Your task to perform on an android device: Search for dell xps on target, select the first entry, and add it to the cart. Image 0: 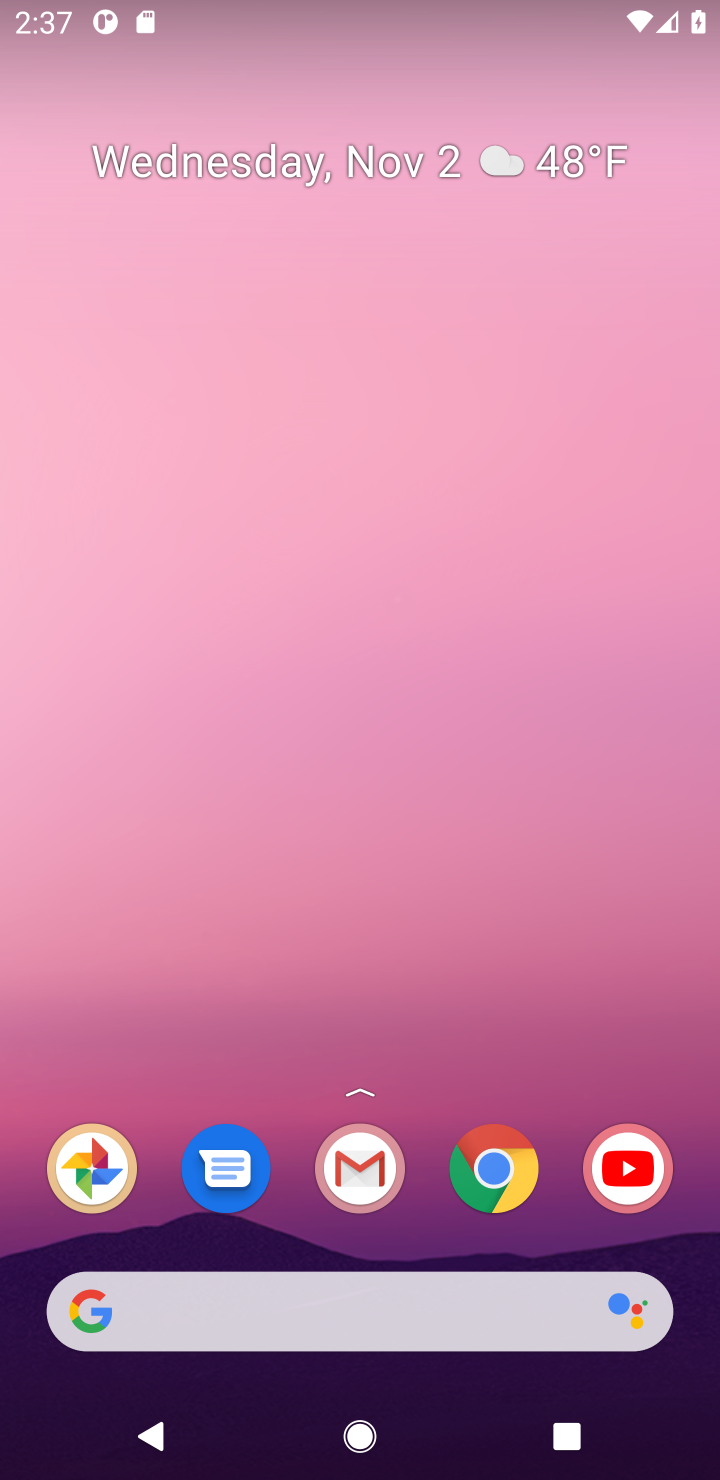
Step 0: drag from (391, 572) to (391, 257)
Your task to perform on an android device: Search for dell xps on target, select the first entry, and add it to the cart. Image 1: 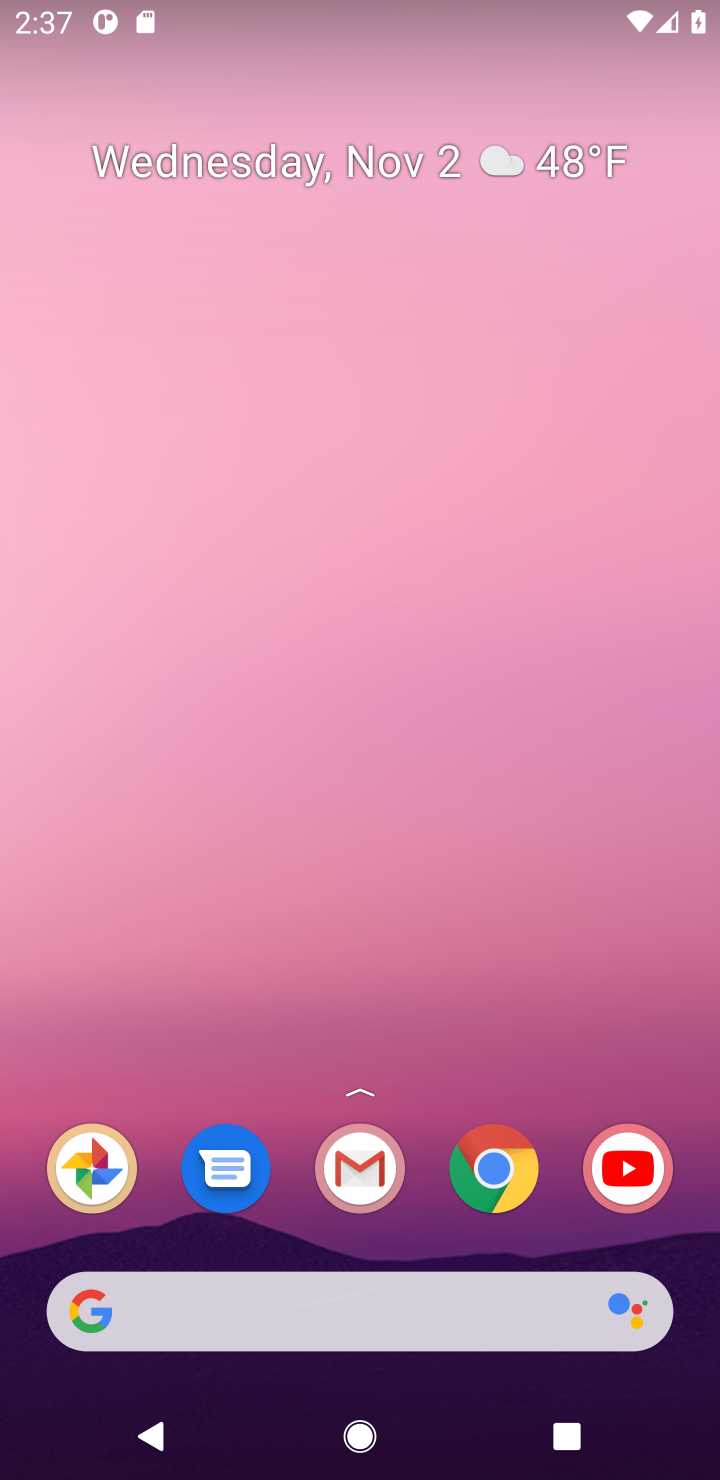
Step 1: click (367, 1305)
Your task to perform on an android device: Search for dell xps on target, select the first entry, and add it to the cart. Image 2: 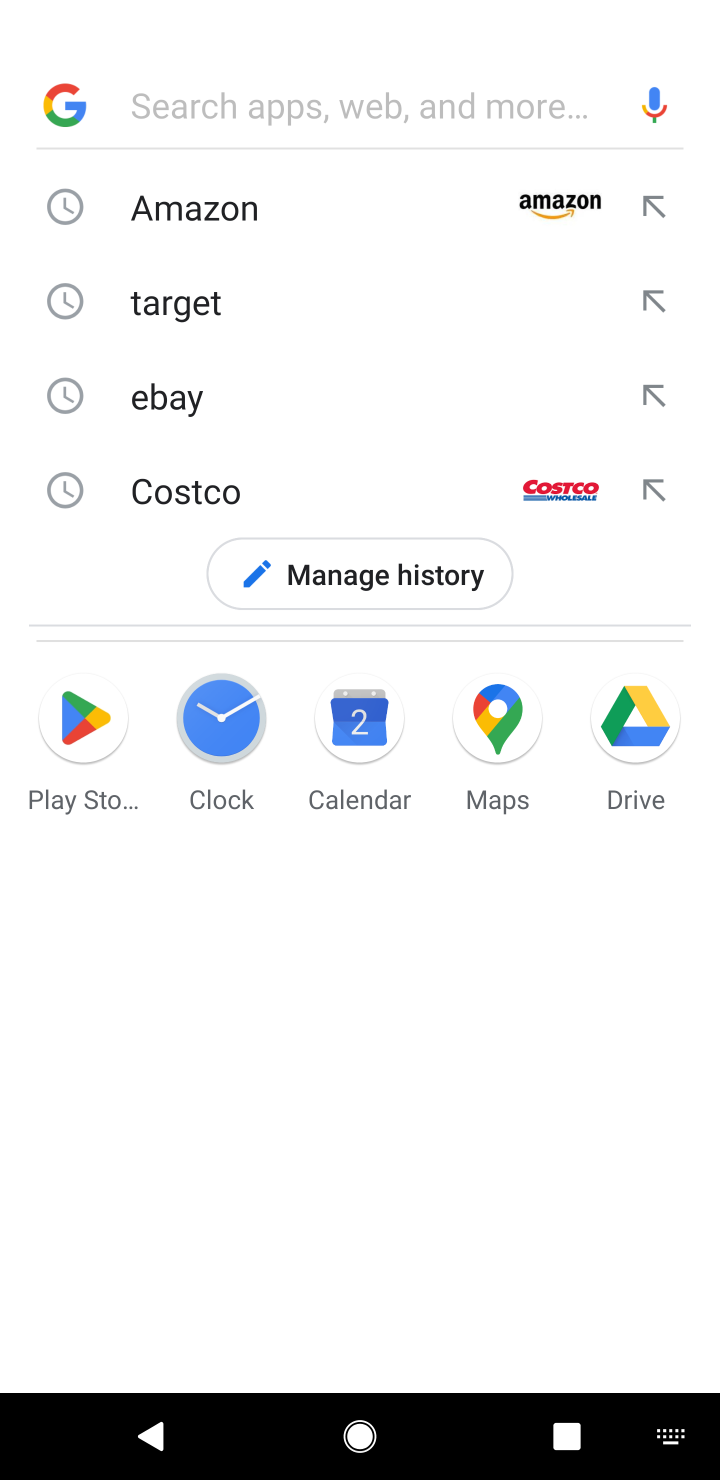
Step 2: click (221, 293)
Your task to perform on an android device: Search for dell xps on target, select the first entry, and add it to the cart. Image 3: 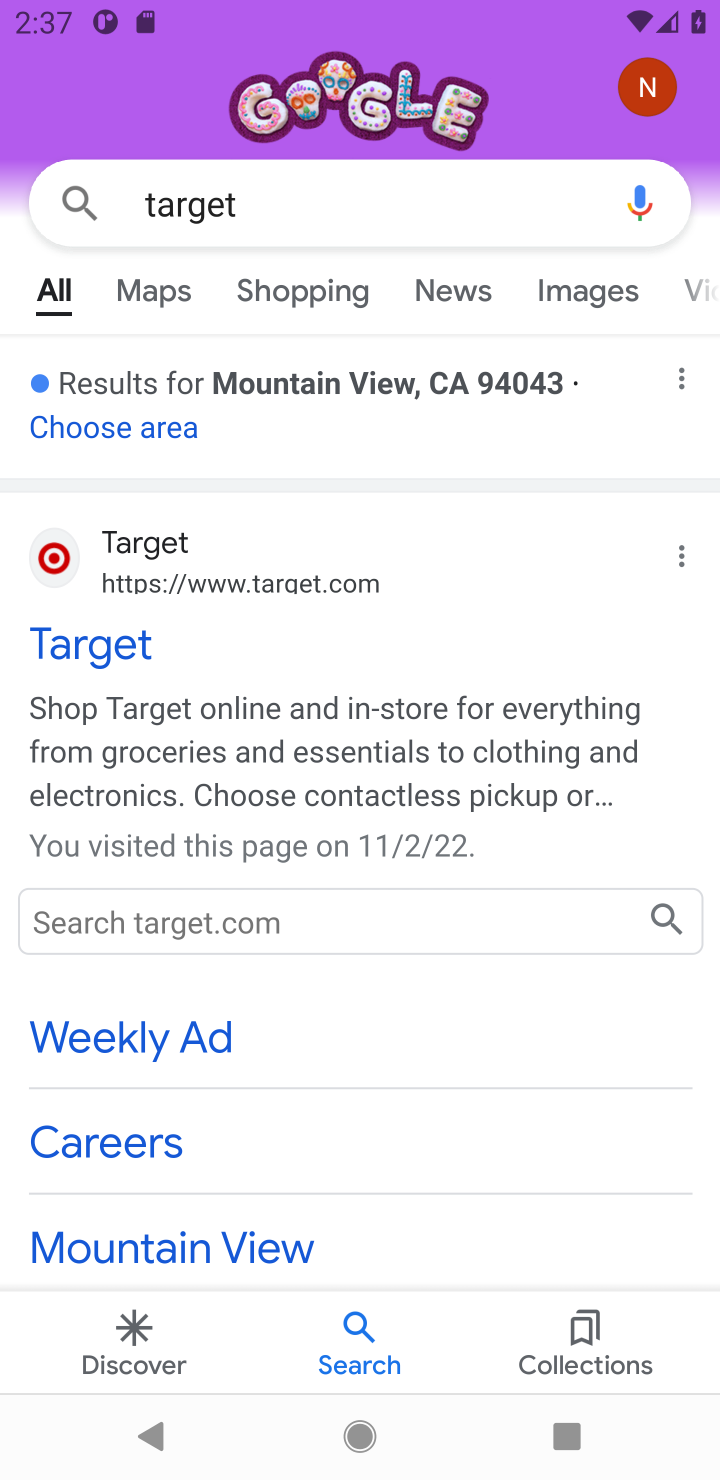
Step 3: click (110, 545)
Your task to perform on an android device: Search for dell xps on target, select the first entry, and add it to the cart. Image 4: 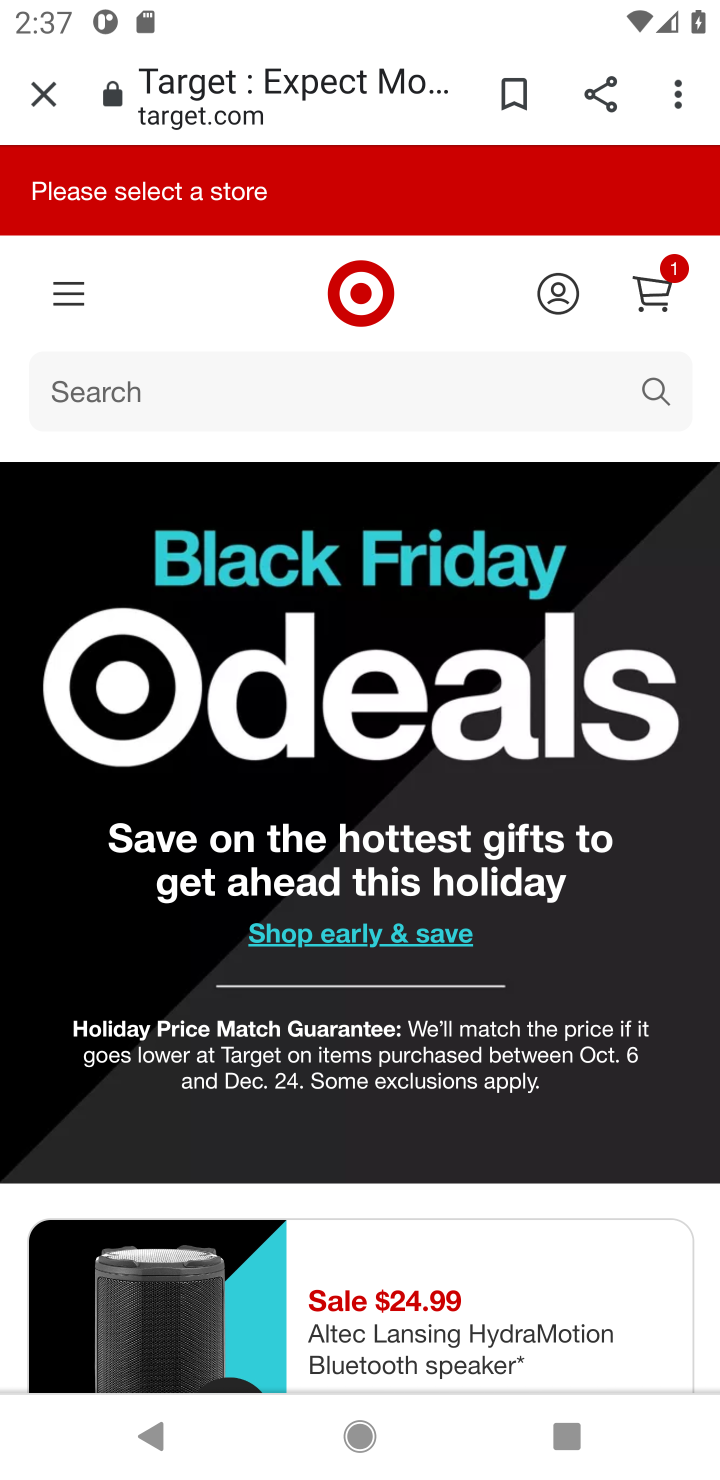
Step 4: click (357, 370)
Your task to perform on an android device: Search for dell xps on target, select the first entry, and add it to the cart. Image 5: 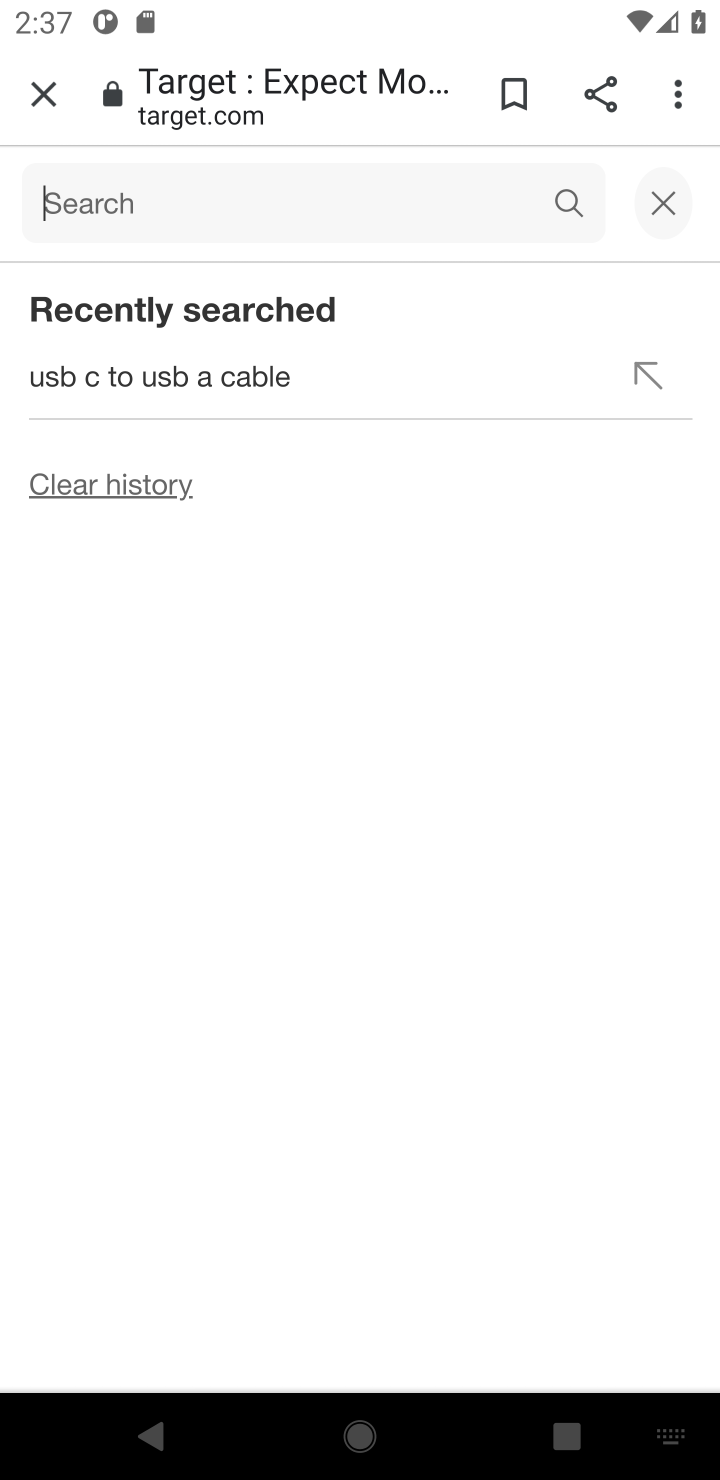
Step 5: type "dell xps "
Your task to perform on an android device: Search for dell xps on target, select the first entry, and add it to the cart. Image 6: 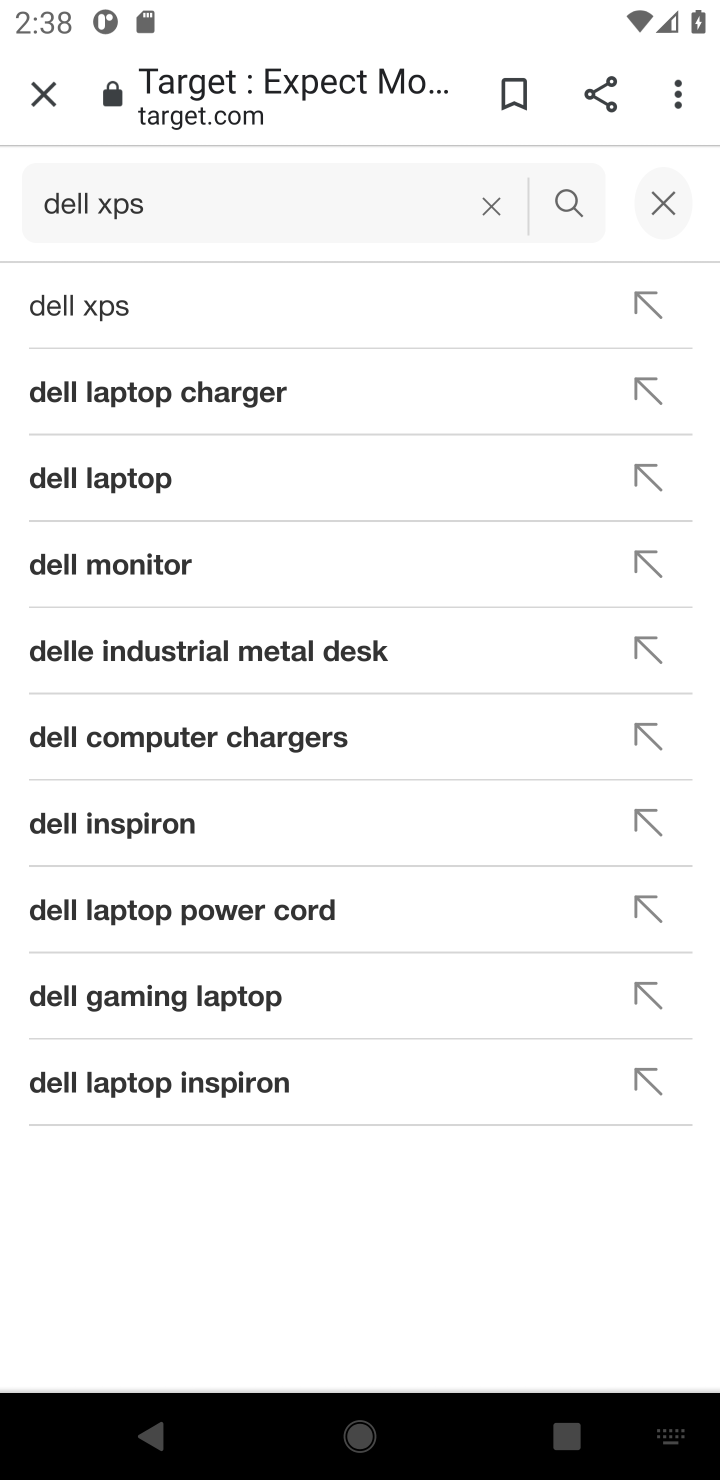
Step 6: click (82, 316)
Your task to perform on an android device: Search for dell xps on target, select the first entry, and add it to the cart. Image 7: 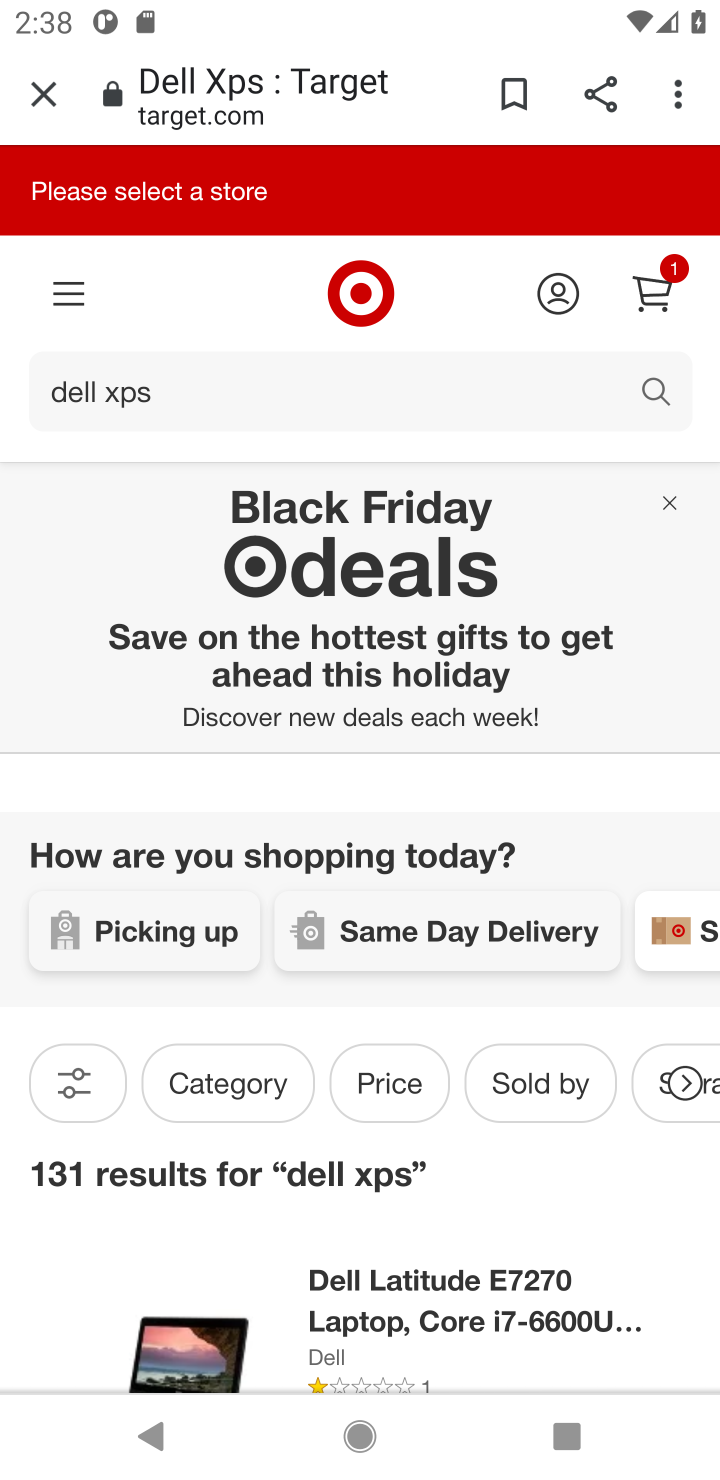
Step 7: click (471, 1317)
Your task to perform on an android device: Search for dell xps on target, select the first entry, and add it to the cart. Image 8: 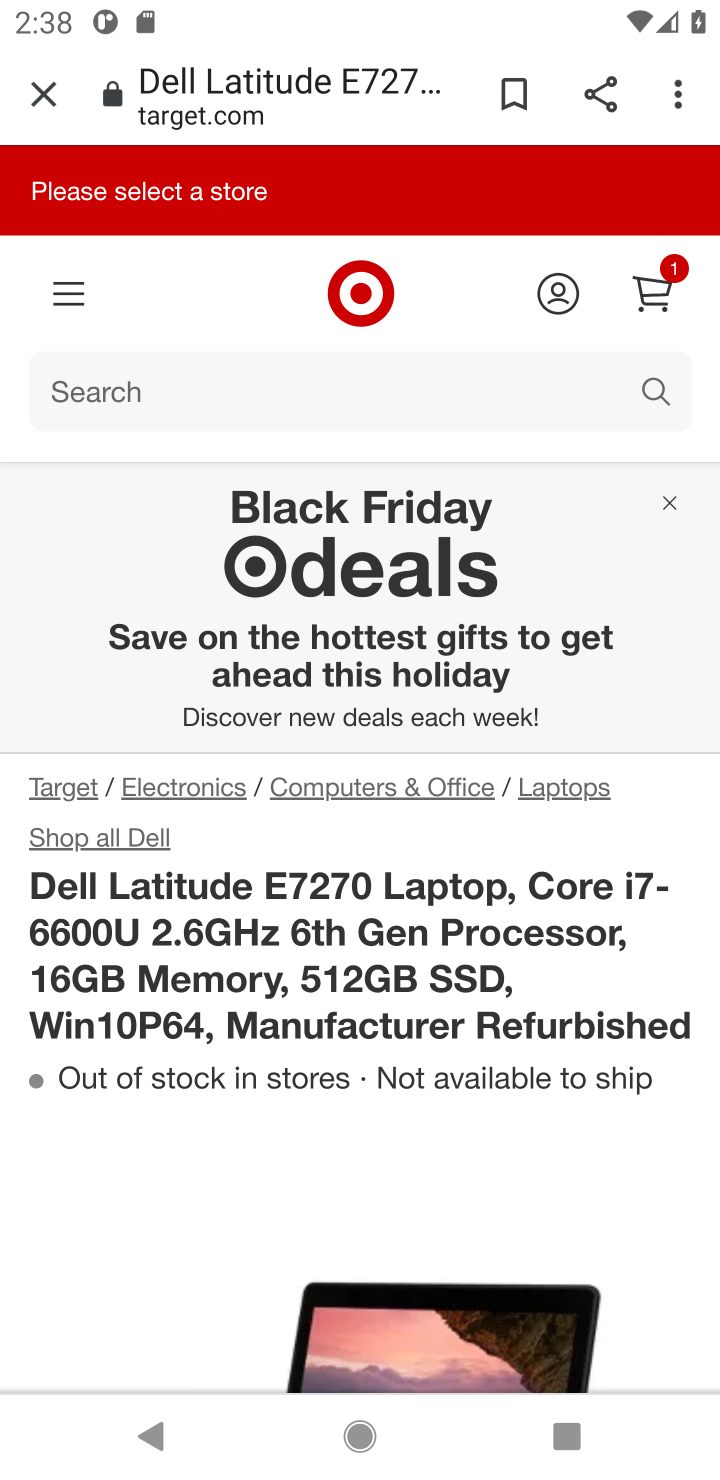
Step 8: drag from (397, 1085) to (442, 138)
Your task to perform on an android device: Search for dell xps on target, select the first entry, and add it to the cart. Image 9: 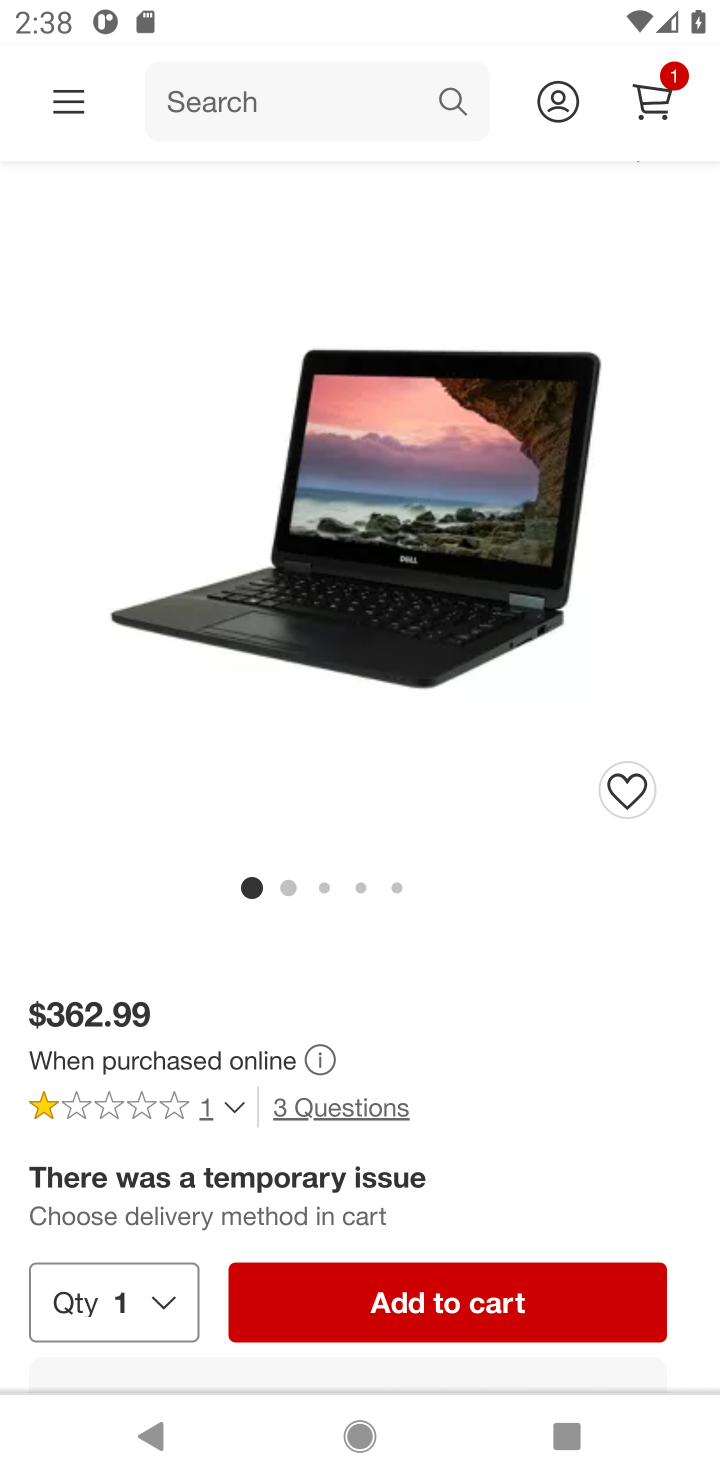
Step 9: click (404, 1329)
Your task to perform on an android device: Search for dell xps on target, select the first entry, and add it to the cart. Image 10: 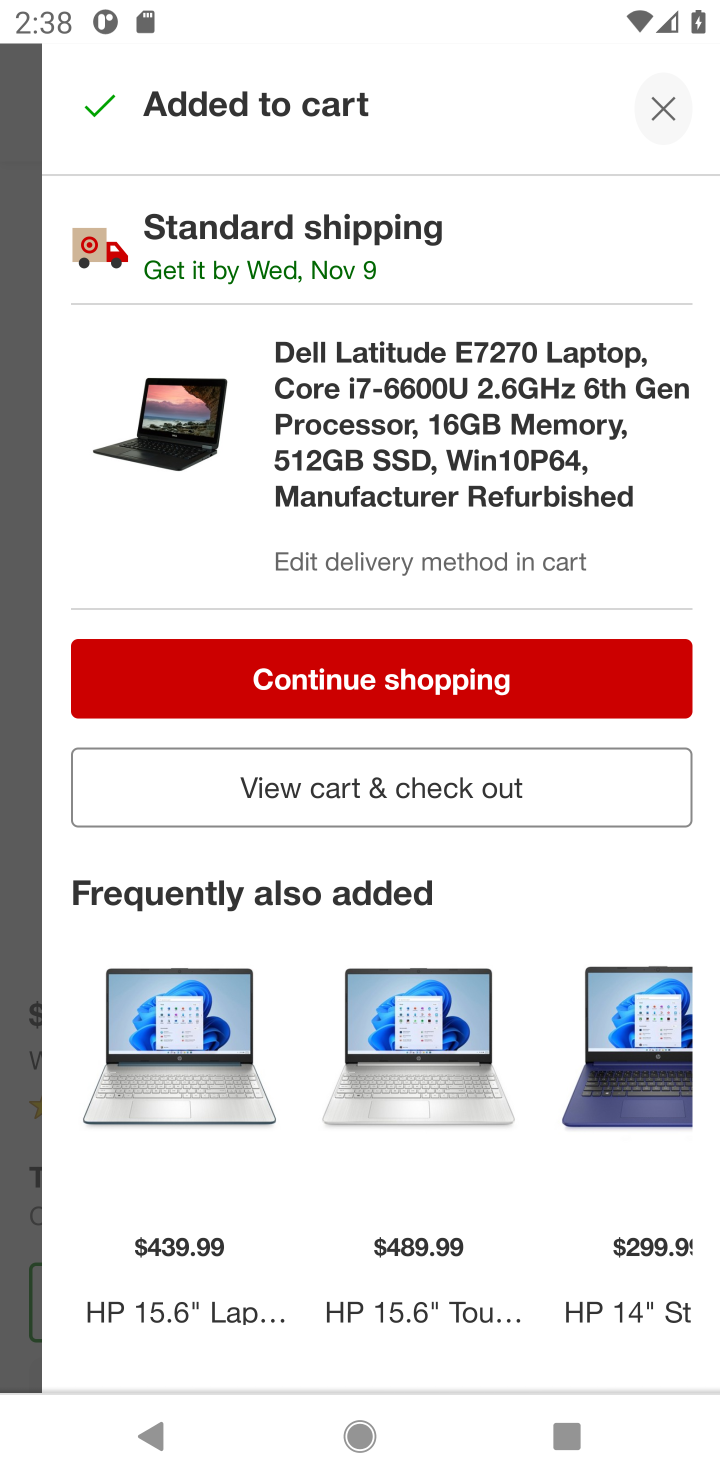
Step 10: task complete